Your task to perform on an android device: open app "ZOOM Cloud Meetings" (install if not already installed) Image 0: 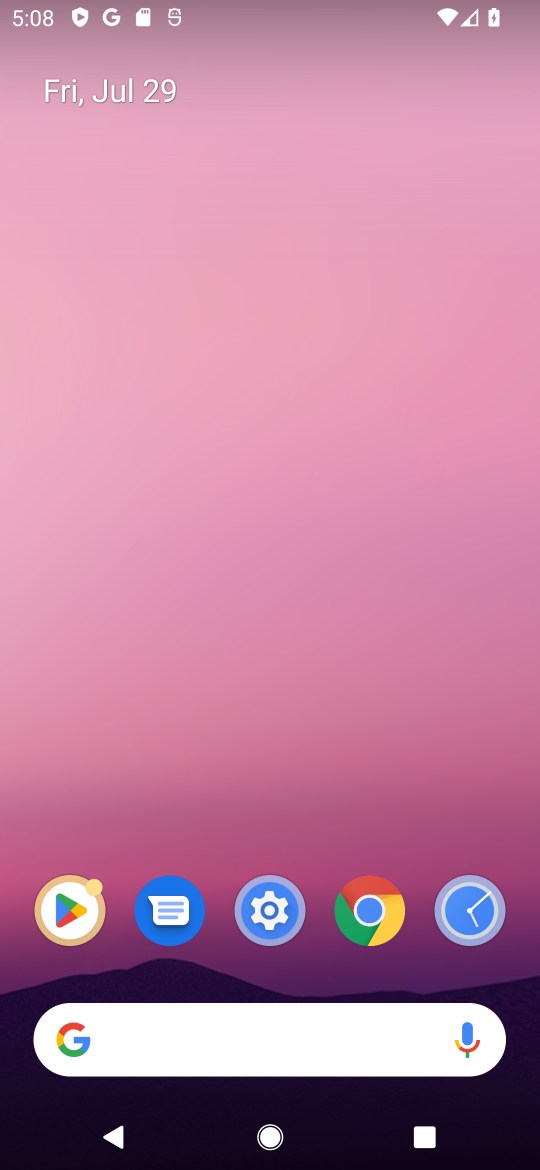
Step 0: click (69, 883)
Your task to perform on an android device: open app "ZOOM Cloud Meetings" (install if not already installed) Image 1: 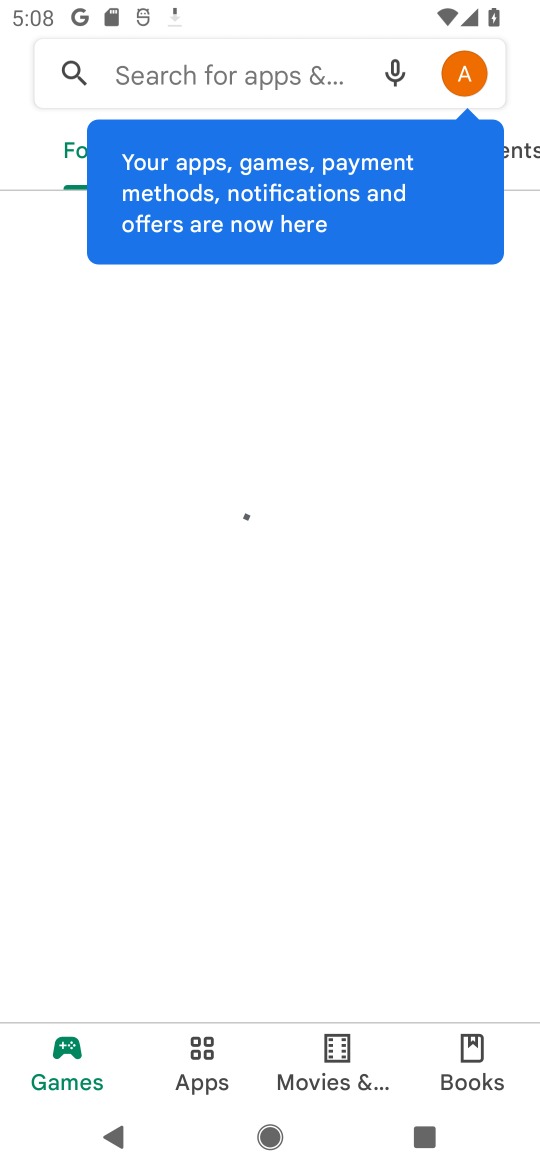
Step 1: click (206, 65)
Your task to perform on an android device: open app "ZOOM Cloud Meetings" (install if not already installed) Image 2: 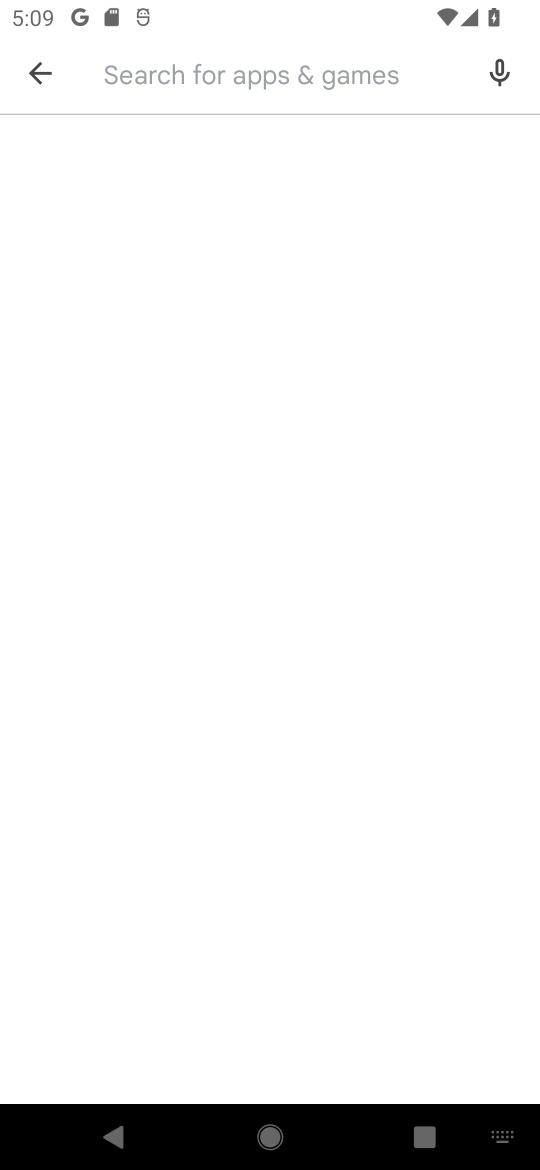
Step 2: type "zoom cloud meetings"
Your task to perform on an android device: open app "ZOOM Cloud Meetings" (install if not already installed) Image 3: 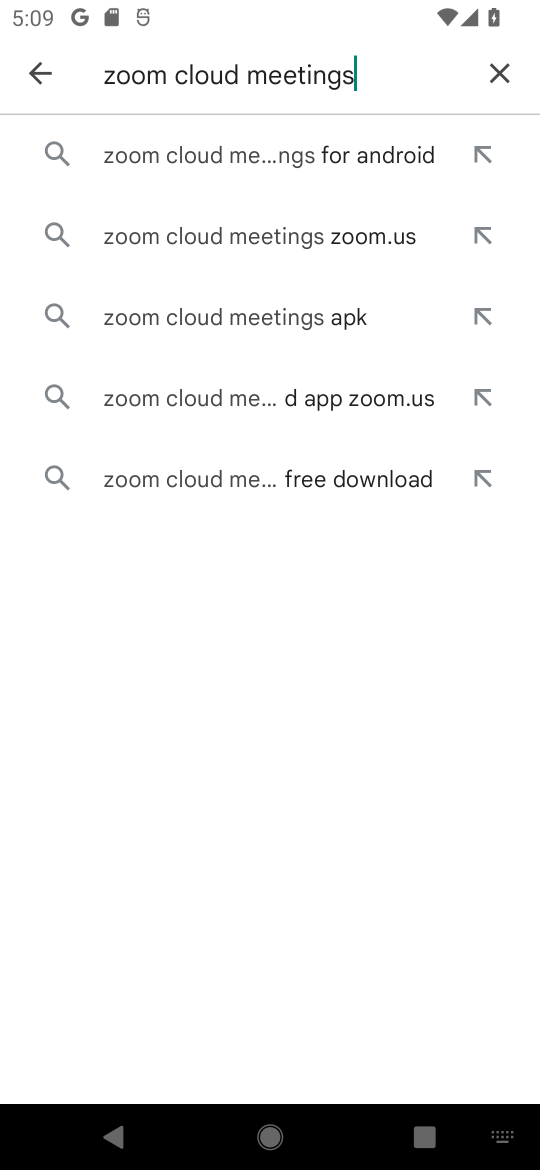
Step 3: click (151, 152)
Your task to perform on an android device: open app "ZOOM Cloud Meetings" (install if not already installed) Image 4: 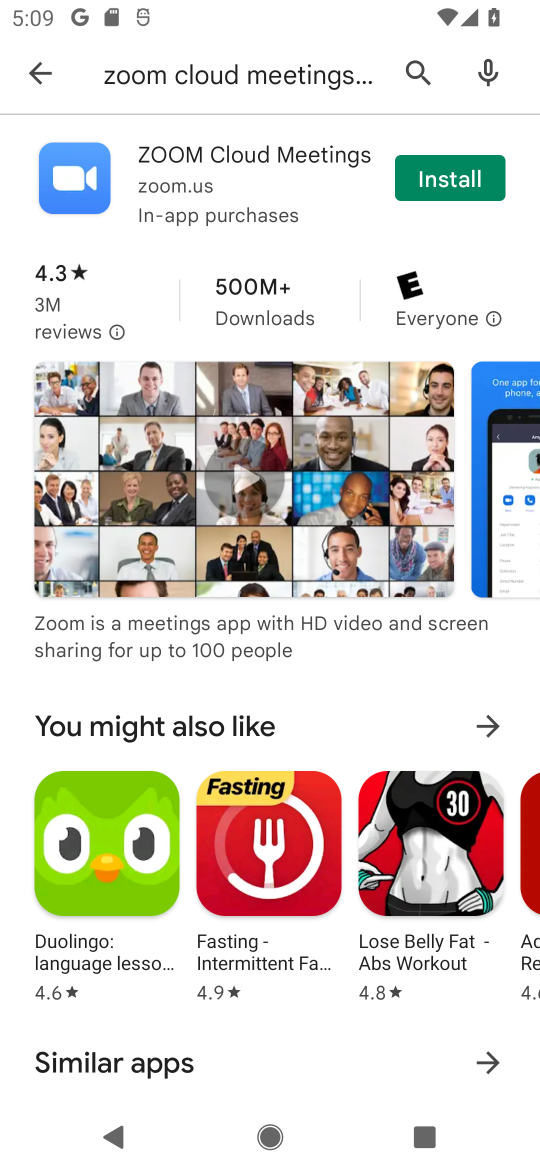
Step 4: click (194, 159)
Your task to perform on an android device: open app "ZOOM Cloud Meetings" (install if not already installed) Image 5: 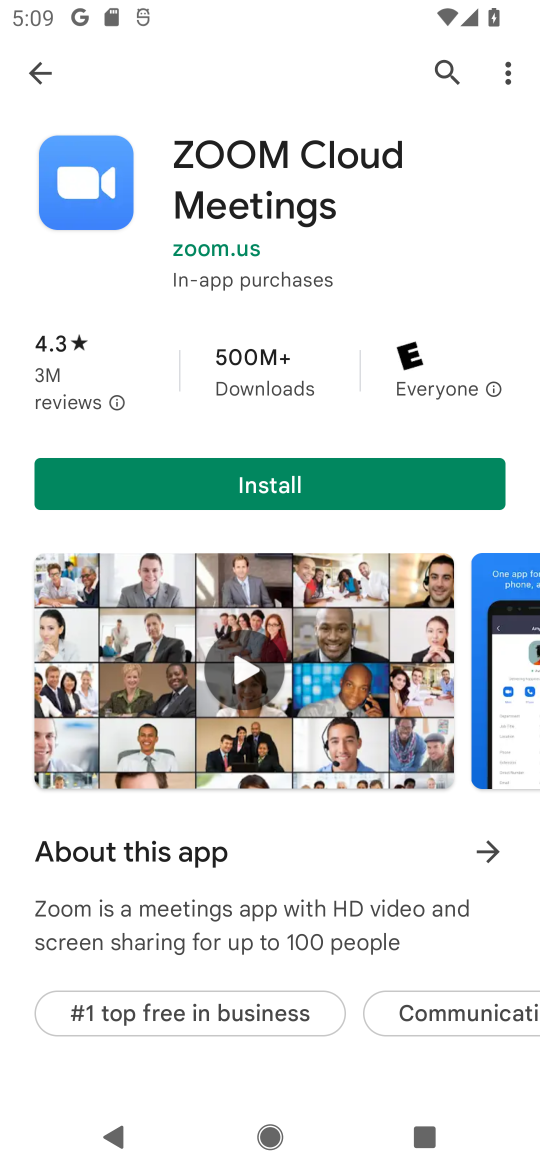
Step 5: click (274, 480)
Your task to perform on an android device: open app "ZOOM Cloud Meetings" (install if not already installed) Image 6: 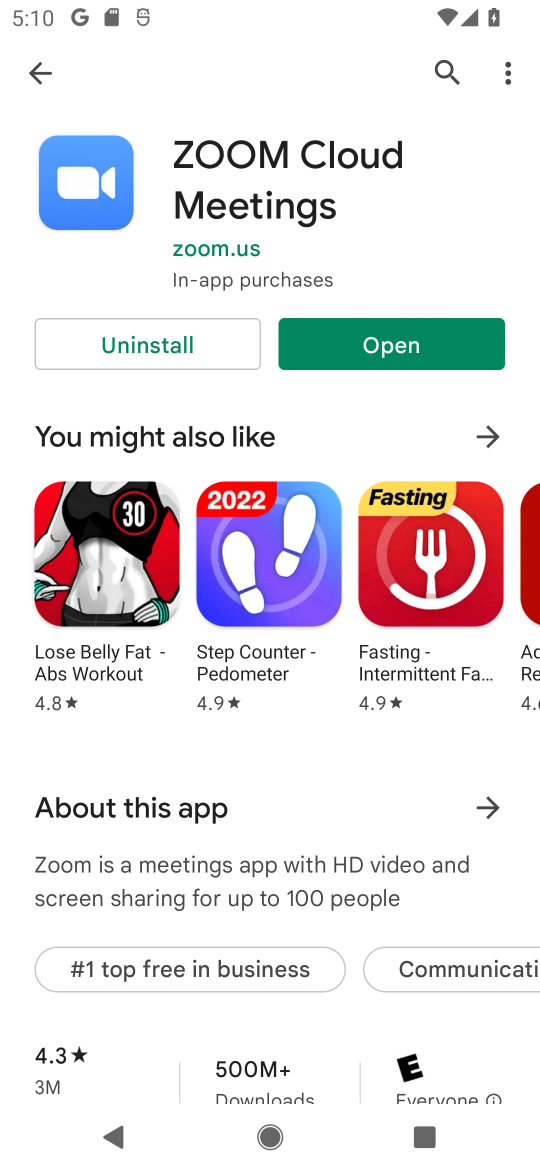
Step 6: click (427, 333)
Your task to perform on an android device: open app "ZOOM Cloud Meetings" (install if not already installed) Image 7: 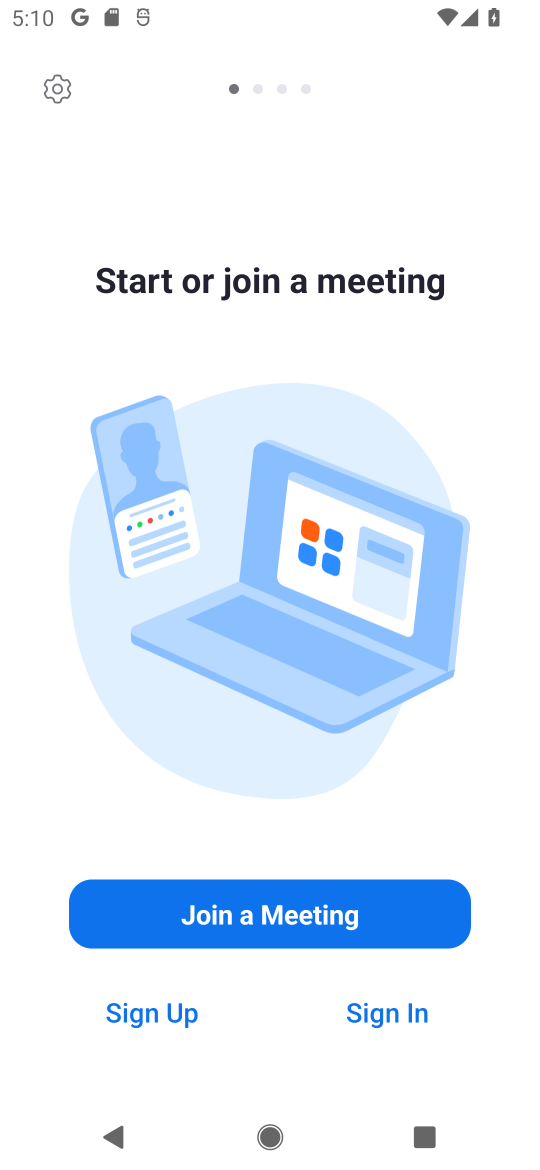
Step 7: task complete